Your task to perform on an android device: turn on the 24-hour format for clock Image 0: 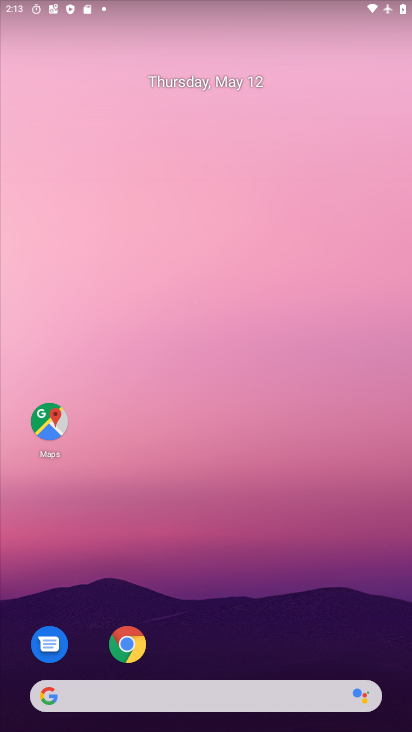
Step 0: drag from (242, 574) to (205, 47)
Your task to perform on an android device: turn on the 24-hour format for clock Image 1: 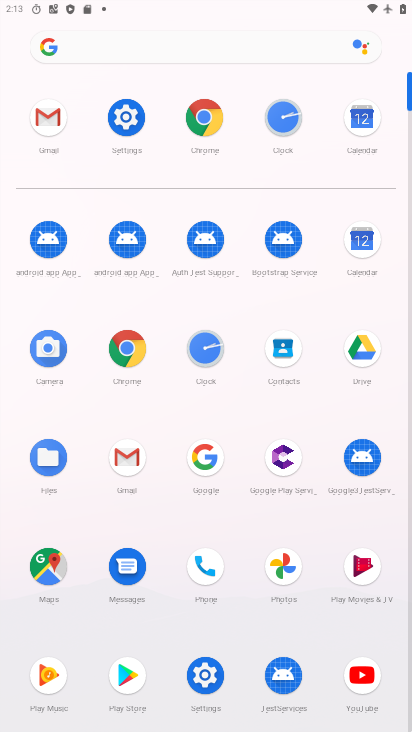
Step 1: click (278, 110)
Your task to perform on an android device: turn on the 24-hour format for clock Image 2: 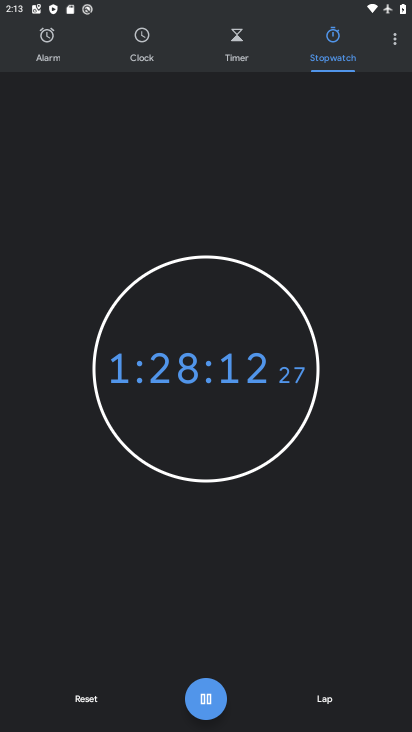
Step 2: click (397, 45)
Your task to perform on an android device: turn on the 24-hour format for clock Image 3: 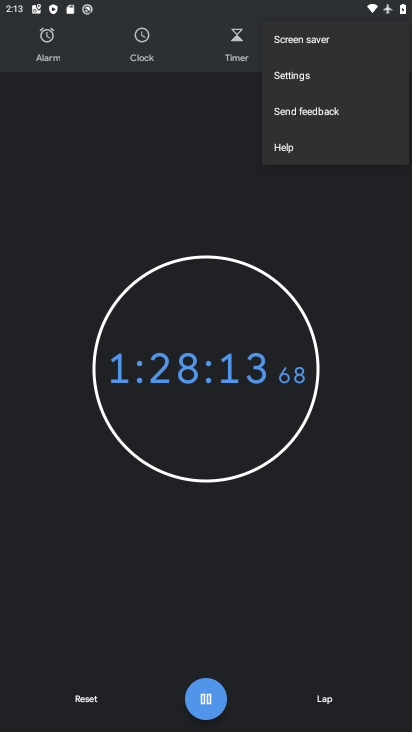
Step 3: click (306, 72)
Your task to perform on an android device: turn on the 24-hour format for clock Image 4: 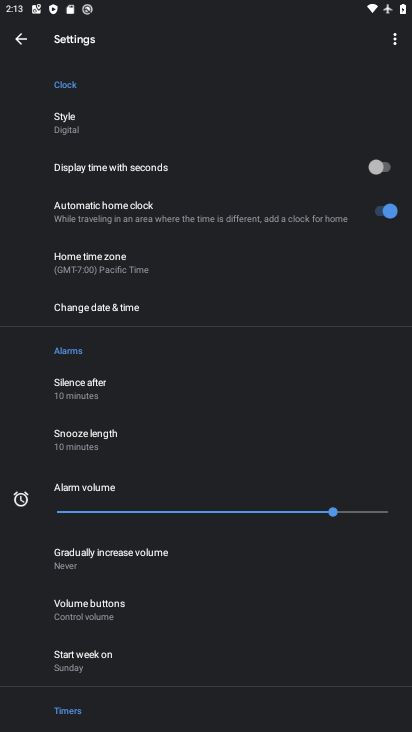
Step 4: click (120, 293)
Your task to perform on an android device: turn on the 24-hour format for clock Image 5: 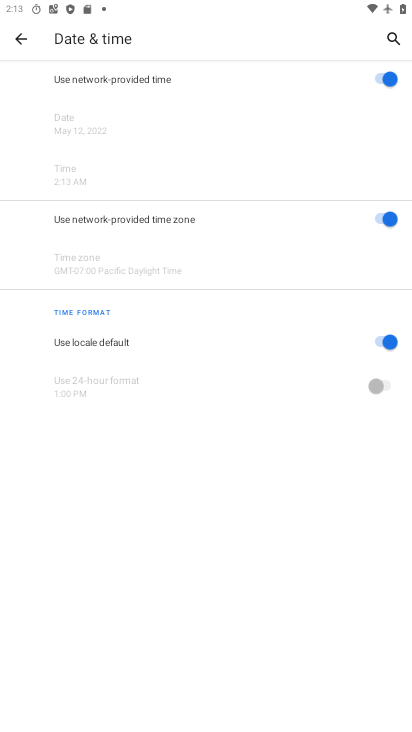
Step 5: click (387, 340)
Your task to perform on an android device: turn on the 24-hour format for clock Image 6: 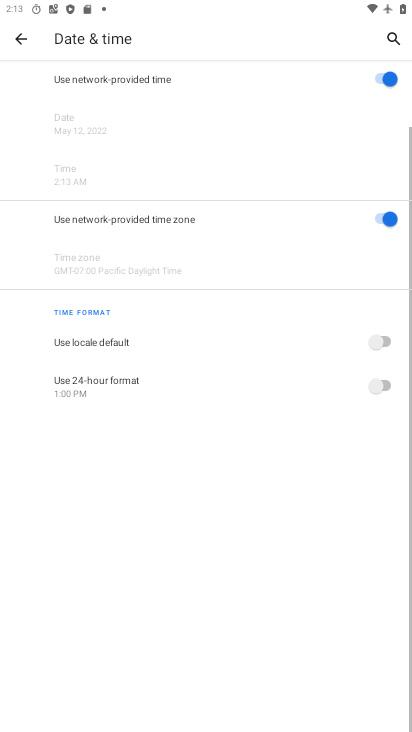
Step 6: click (382, 390)
Your task to perform on an android device: turn on the 24-hour format for clock Image 7: 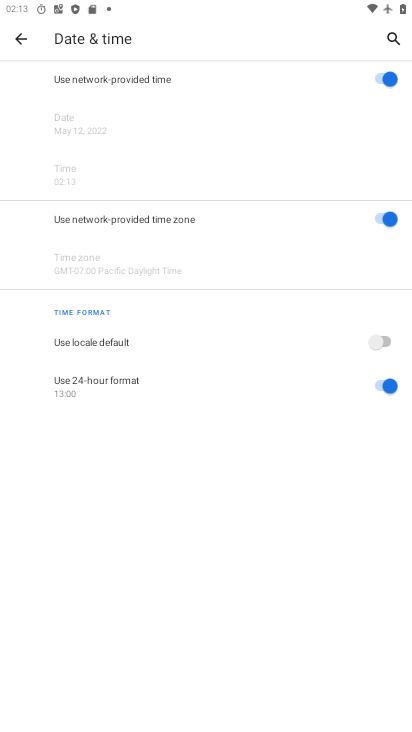
Step 7: task complete